Your task to perform on an android device: Open the stopwatch Image 0: 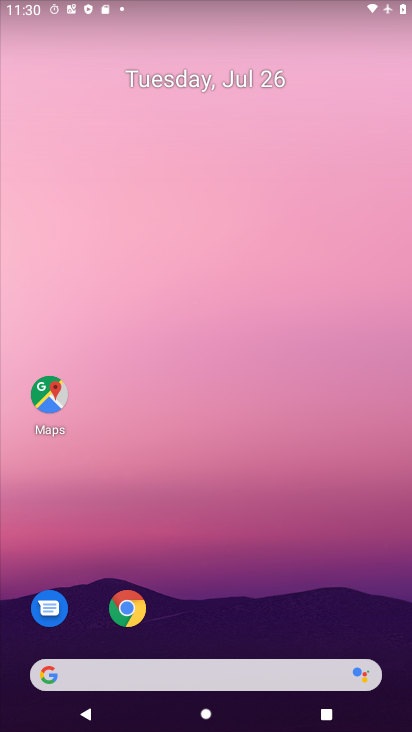
Step 0: drag from (246, 570) to (233, 145)
Your task to perform on an android device: Open the stopwatch Image 1: 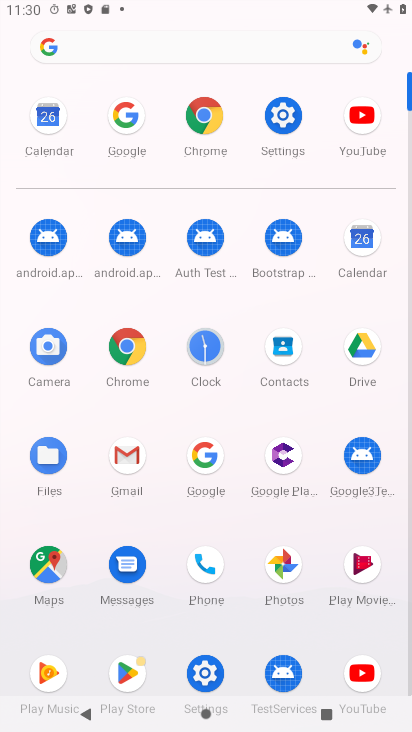
Step 1: click (199, 334)
Your task to perform on an android device: Open the stopwatch Image 2: 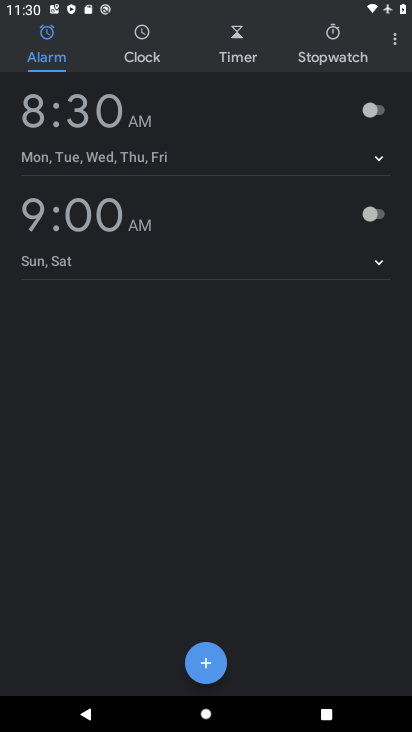
Step 2: click (330, 54)
Your task to perform on an android device: Open the stopwatch Image 3: 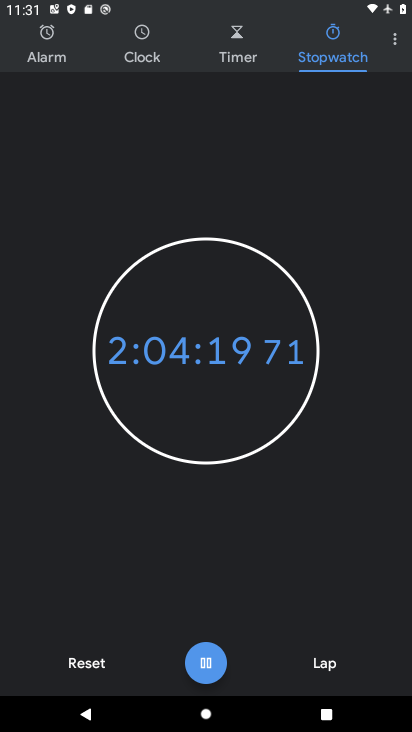
Step 3: task complete